Your task to perform on an android device: open chrome privacy settings Image 0: 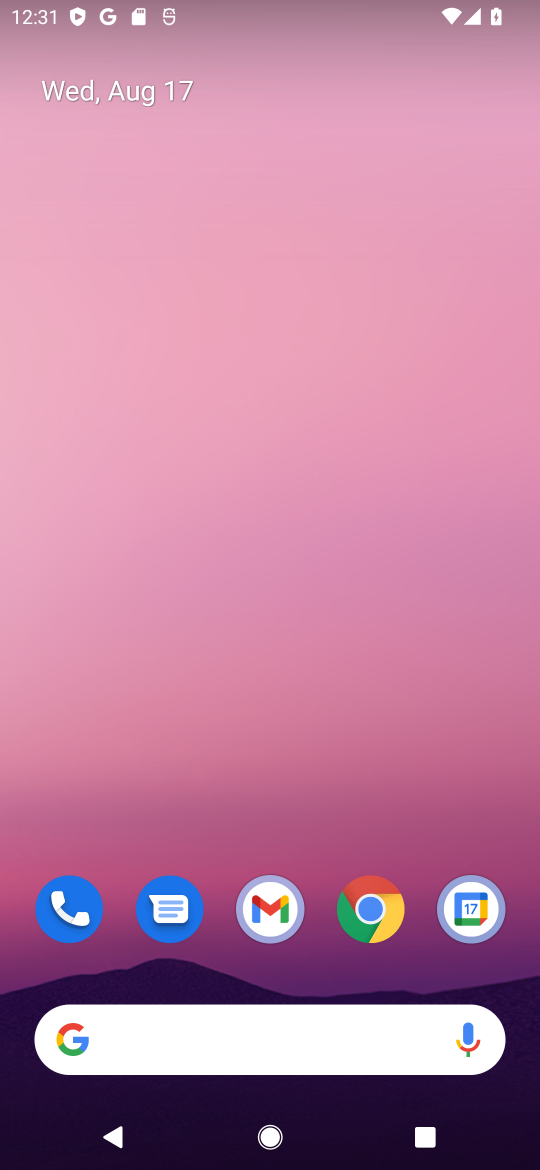
Step 0: click (367, 906)
Your task to perform on an android device: open chrome privacy settings Image 1: 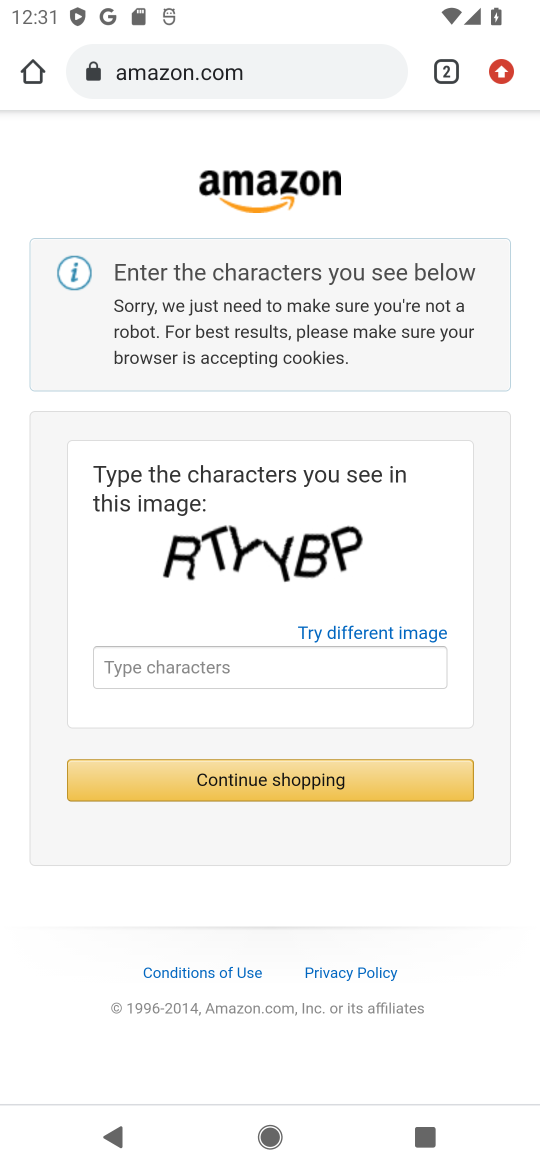
Step 1: click (496, 73)
Your task to perform on an android device: open chrome privacy settings Image 2: 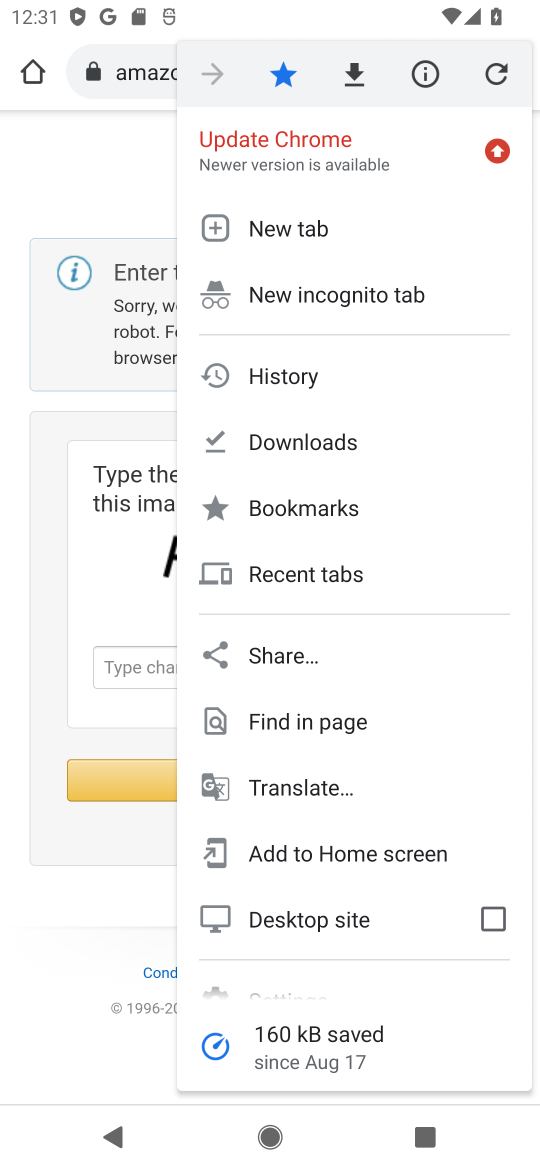
Step 2: drag from (367, 895) to (360, 453)
Your task to perform on an android device: open chrome privacy settings Image 3: 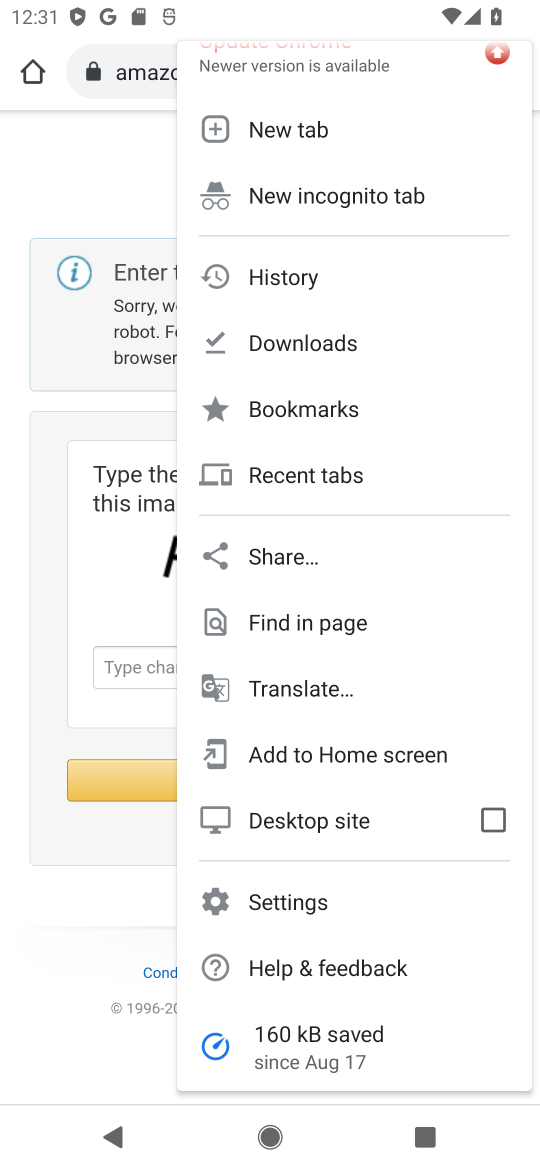
Step 3: click (292, 887)
Your task to perform on an android device: open chrome privacy settings Image 4: 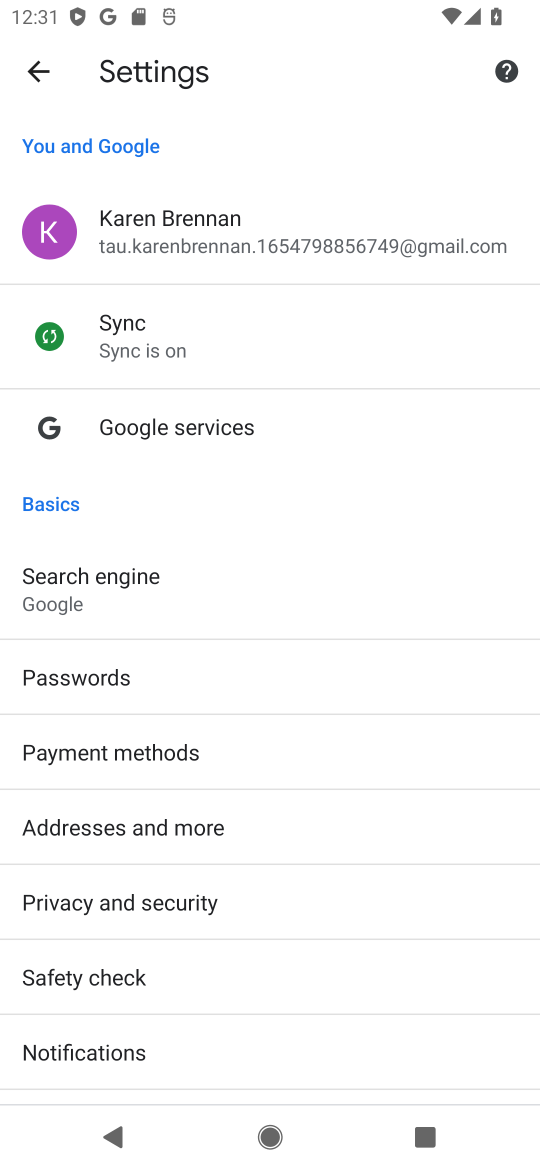
Step 4: click (108, 889)
Your task to perform on an android device: open chrome privacy settings Image 5: 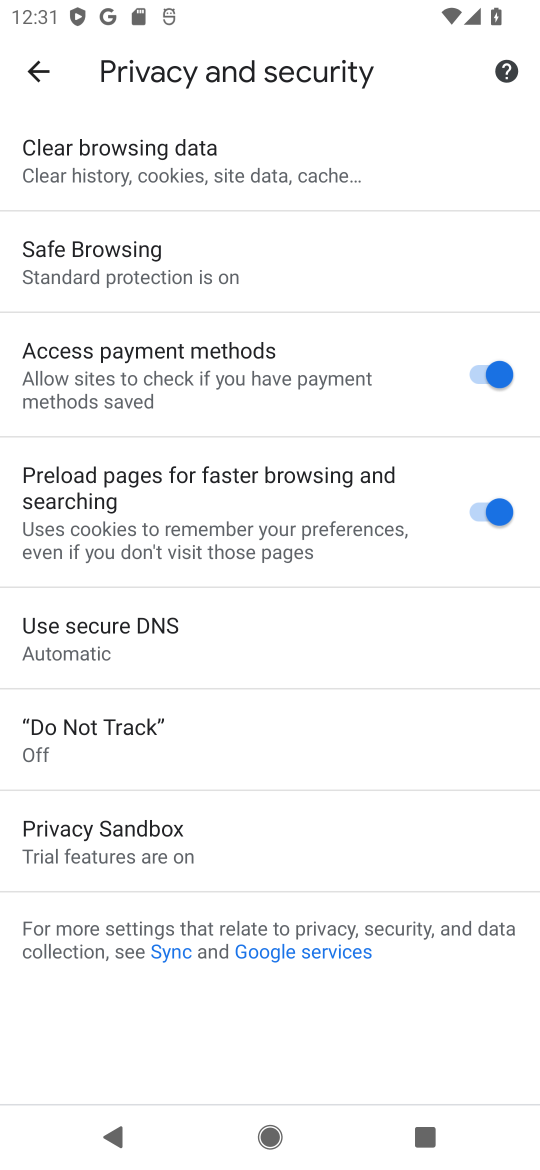
Step 5: task complete